Your task to perform on an android device: change timer sound Image 0: 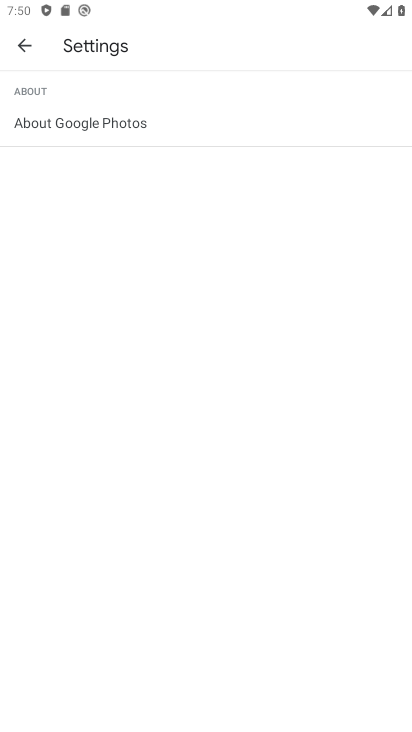
Step 0: press back button
Your task to perform on an android device: change timer sound Image 1: 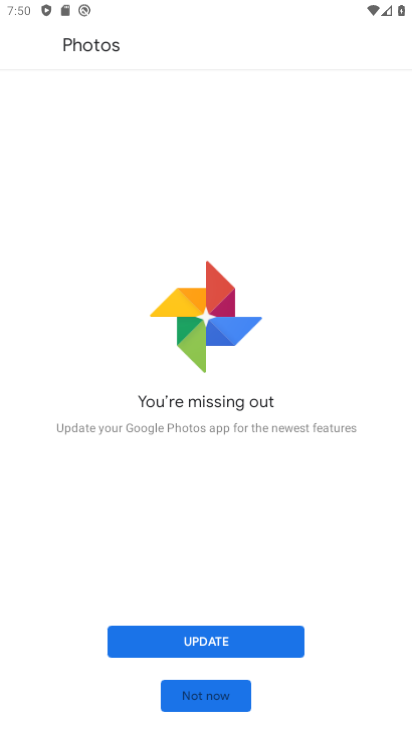
Step 1: press home button
Your task to perform on an android device: change timer sound Image 2: 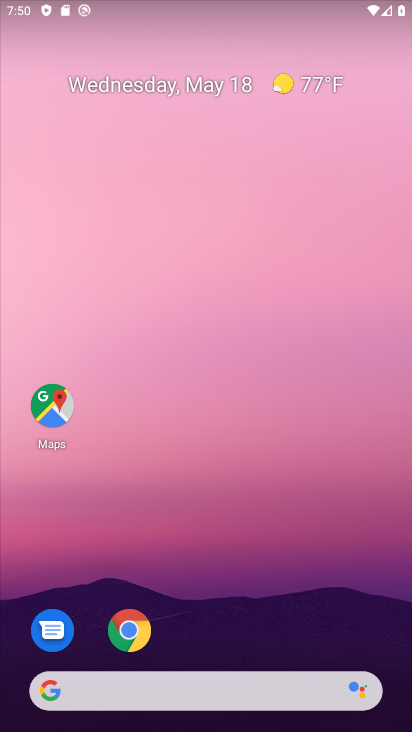
Step 2: drag from (229, 619) to (306, 239)
Your task to perform on an android device: change timer sound Image 3: 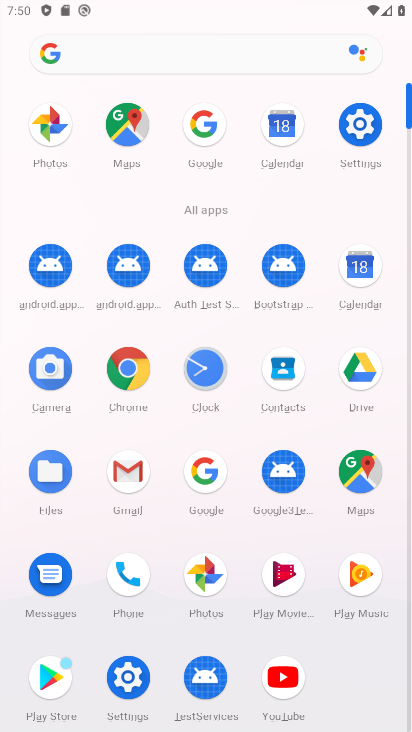
Step 3: click (208, 371)
Your task to perform on an android device: change timer sound Image 4: 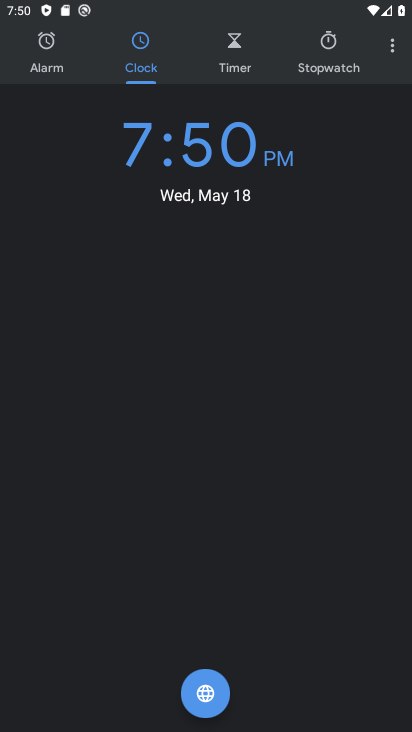
Step 4: click (392, 47)
Your task to perform on an android device: change timer sound Image 5: 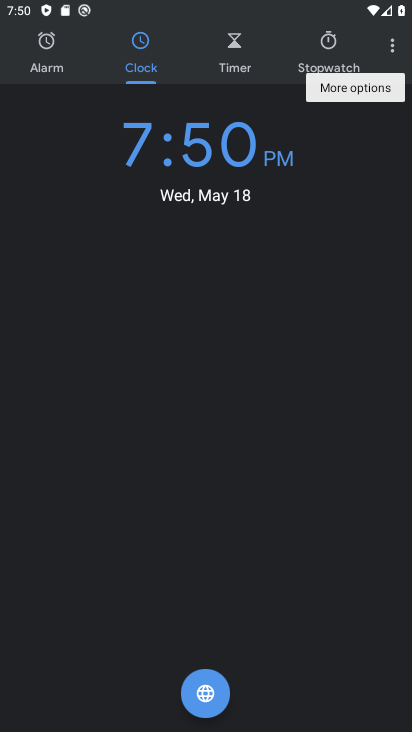
Step 5: click (389, 52)
Your task to perform on an android device: change timer sound Image 6: 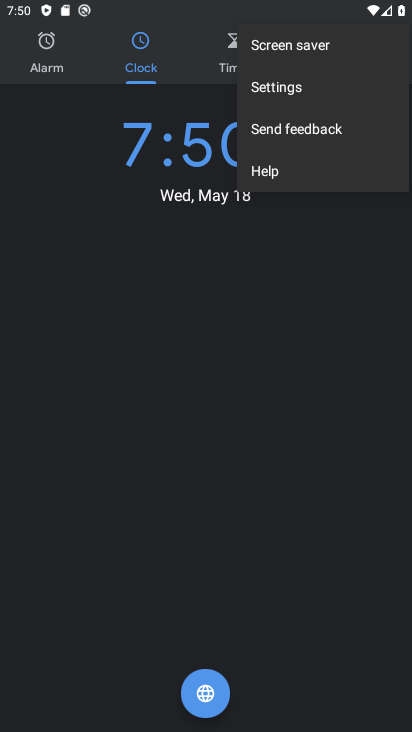
Step 6: click (309, 92)
Your task to perform on an android device: change timer sound Image 7: 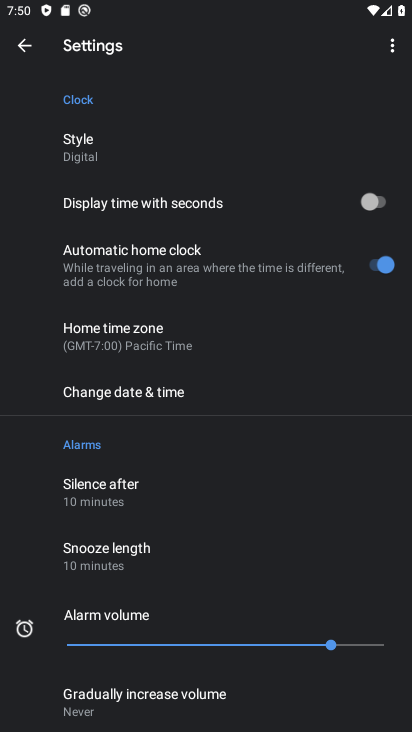
Step 7: drag from (166, 584) to (180, 288)
Your task to perform on an android device: change timer sound Image 8: 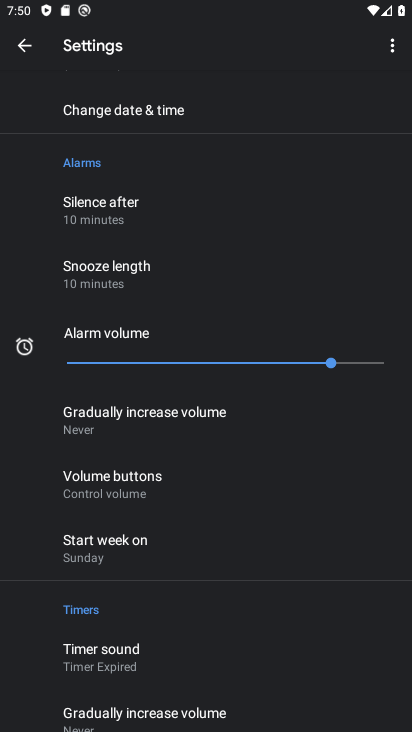
Step 8: click (156, 660)
Your task to perform on an android device: change timer sound Image 9: 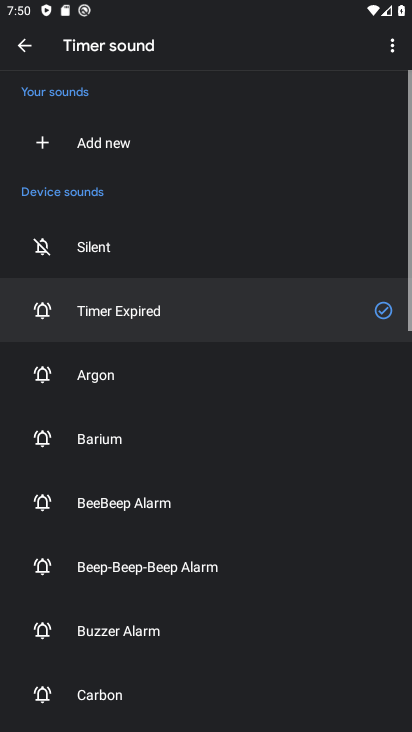
Step 9: click (138, 384)
Your task to perform on an android device: change timer sound Image 10: 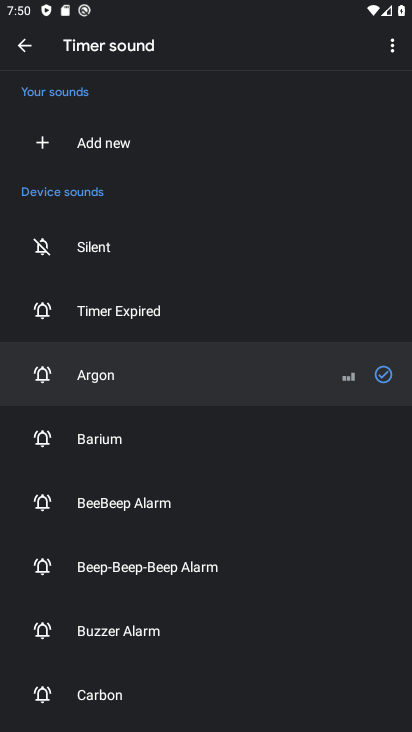
Step 10: task complete